Your task to perform on an android device: Open Maps and search for coffee Image 0: 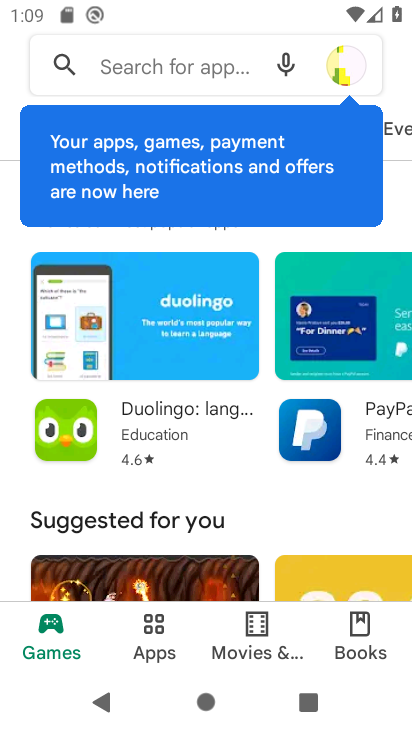
Step 0: press home button
Your task to perform on an android device: Open Maps and search for coffee Image 1: 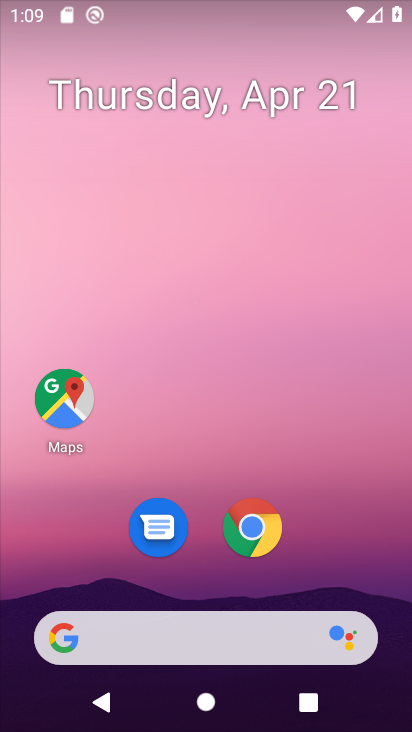
Step 1: drag from (339, 553) to (344, 132)
Your task to perform on an android device: Open Maps and search for coffee Image 2: 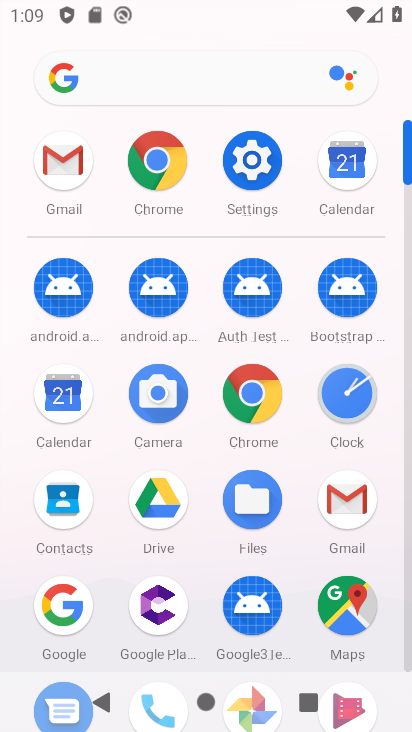
Step 2: click (356, 610)
Your task to perform on an android device: Open Maps and search for coffee Image 3: 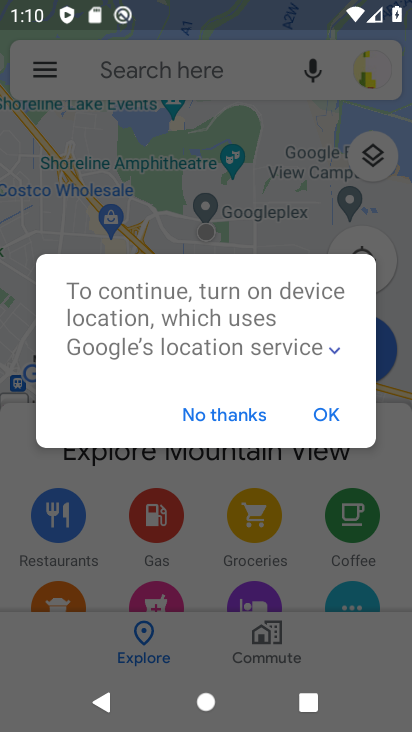
Step 3: click (252, 422)
Your task to perform on an android device: Open Maps and search for coffee Image 4: 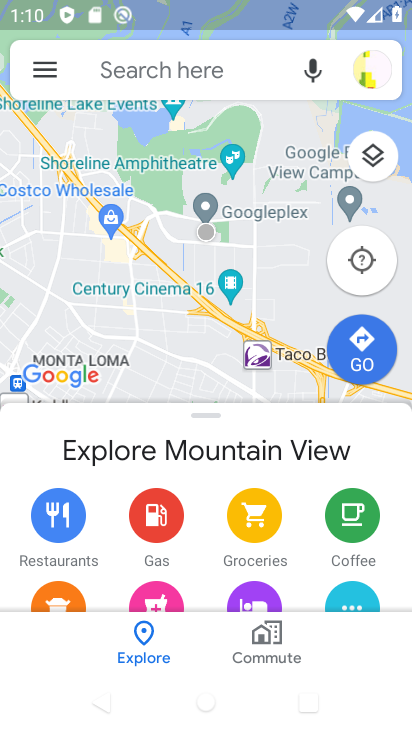
Step 4: click (214, 69)
Your task to perform on an android device: Open Maps and search for coffee Image 5: 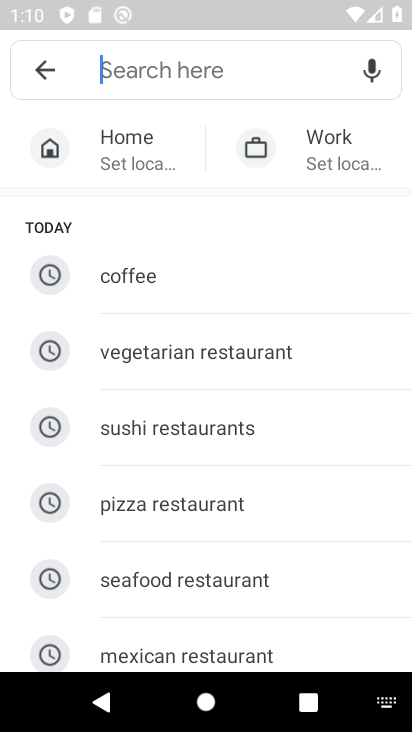
Step 5: type "coffee"
Your task to perform on an android device: Open Maps and search for coffee Image 6: 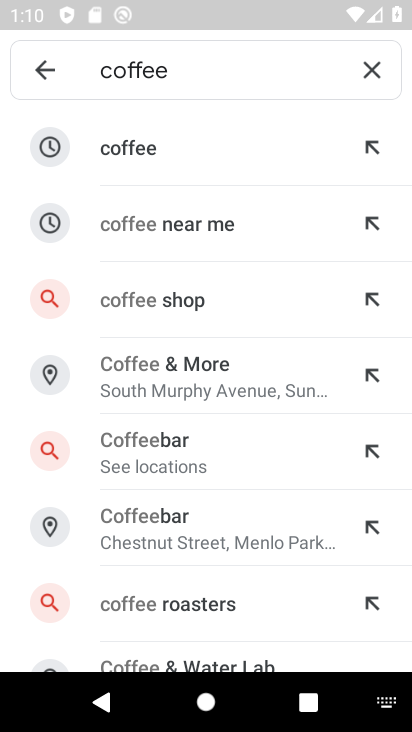
Step 6: click (190, 165)
Your task to perform on an android device: Open Maps and search for coffee Image 7: 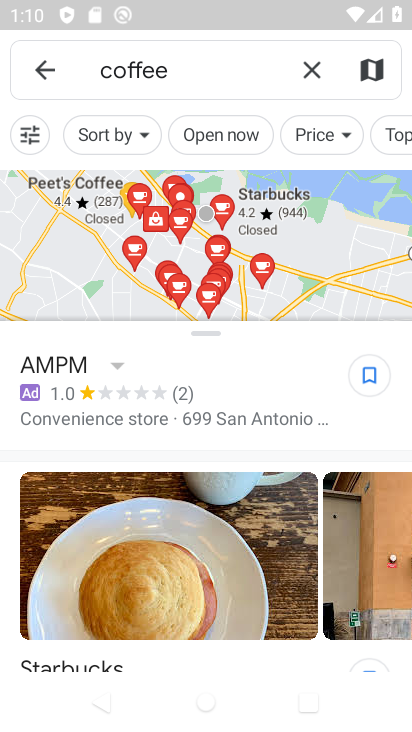
Step 7: task complete